Your task to perform on an android device: Open the map Image 0: 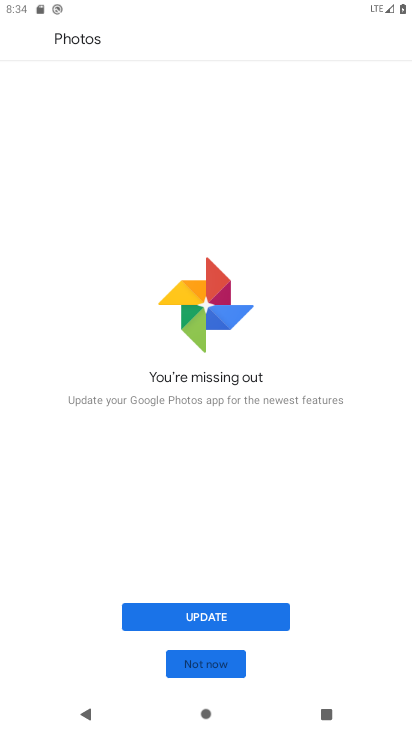
Step 0: press home button
Your task to perform on an android device: Open the map Image 1: 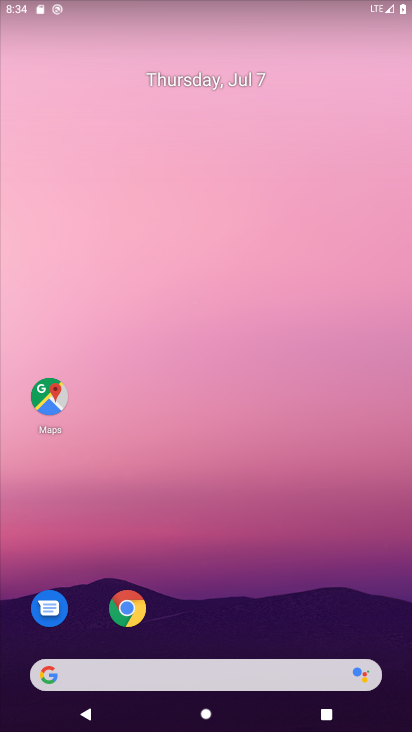
Step 1: drag from (357, 604) to (380, 135)
Your task to perform on an android device: Open the map Image 2: 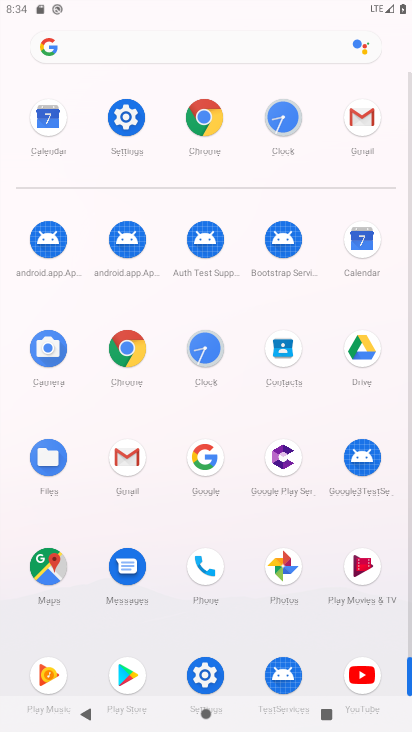
Step 2: click (49, 566)
Your task to perform on an android device: Open the map Image 3: 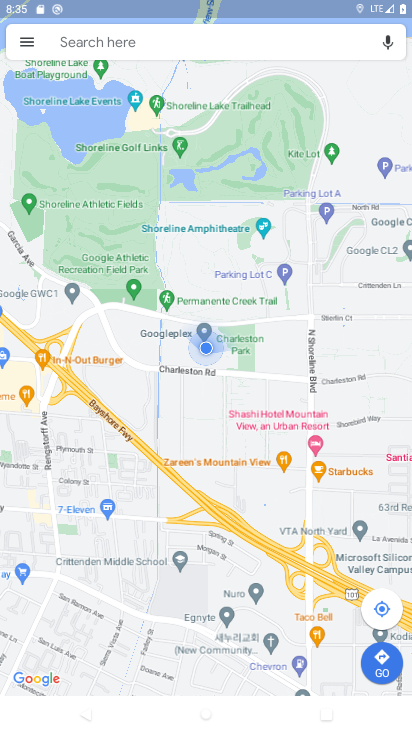
Step 3: task complete